Your task to perform on an android device: make emails show in primary in the gmail app Image 0: 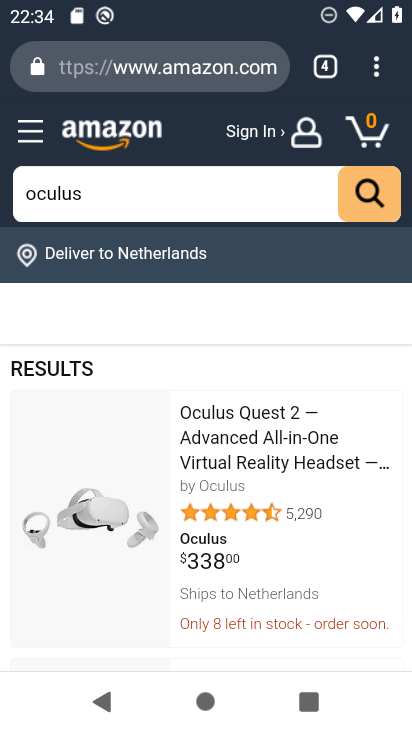
Step 0: press home button
Your task to perform on an android device: make emails show in primary in the gmail app Image 1: 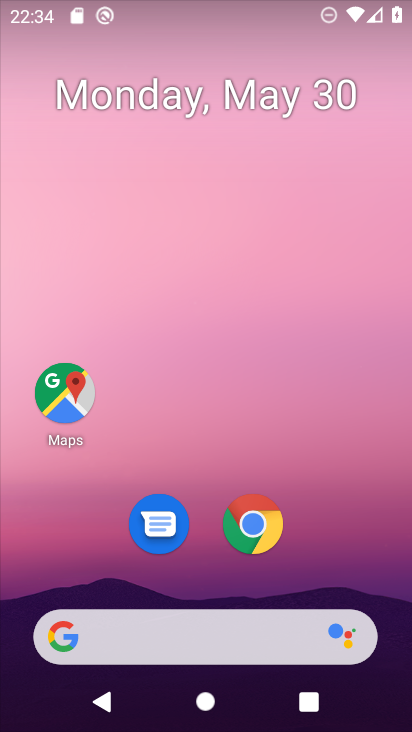
Step 1: drag from (344, 553) to (281, 49)
Your task to perform on an android device: make emails show in primary in the gmail app Image 2: 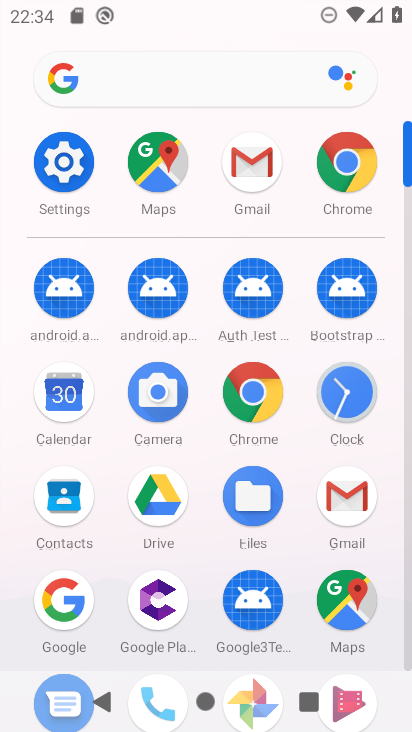
Step 2: click (256, 159)
Your task to perform on an android device: make emails show in primary in the gmail app Image 3: 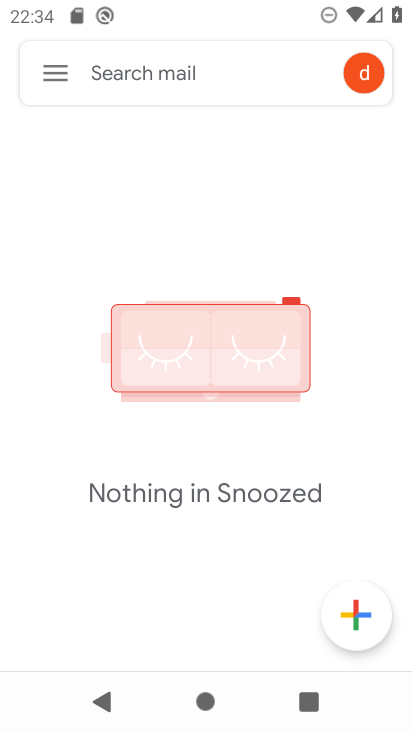
Step 3: click (58, 77)
Your task to perform on an android device: make emails show in primary in the gmail app Image 4: 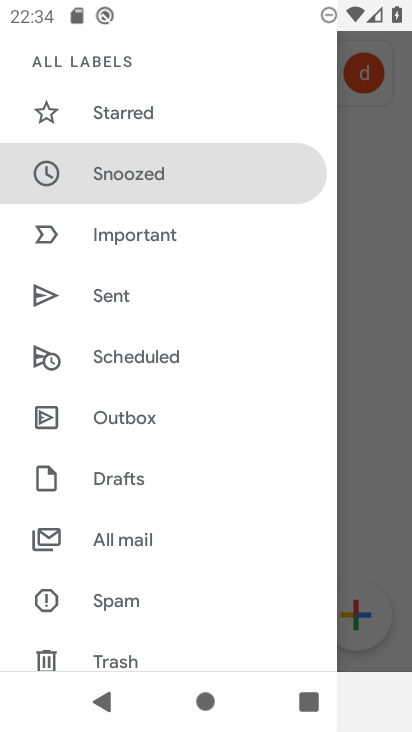
Step 4: drag from (157, 554) to (177, 186)
Your task to perform on an android device: make emails show in primary in the gmail app Image 5: 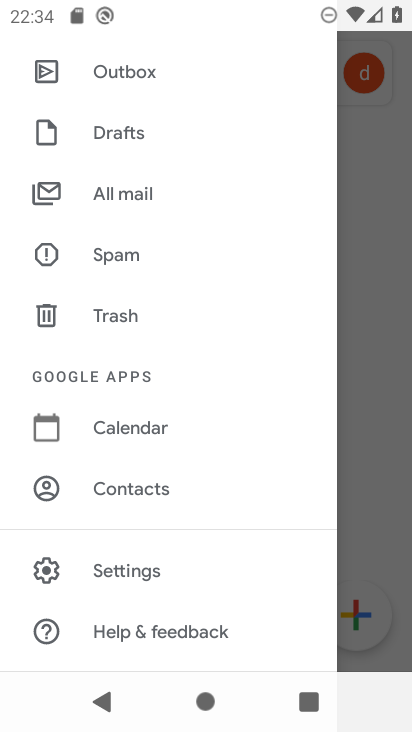
Step 5: click (201, 560)
Your task to perform on an android device: make emails show in primary in the gmail app Image 6: 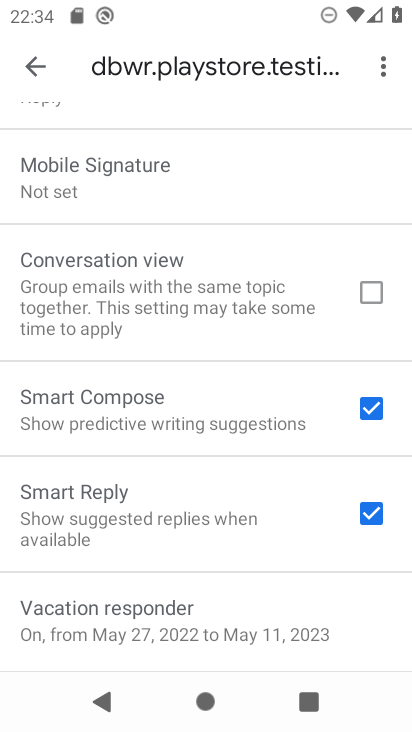
Step 6: drag from (159, 194) to (201, 691)
Your task to perform on an android device: make emails show in primary in the gmail app Image 7: 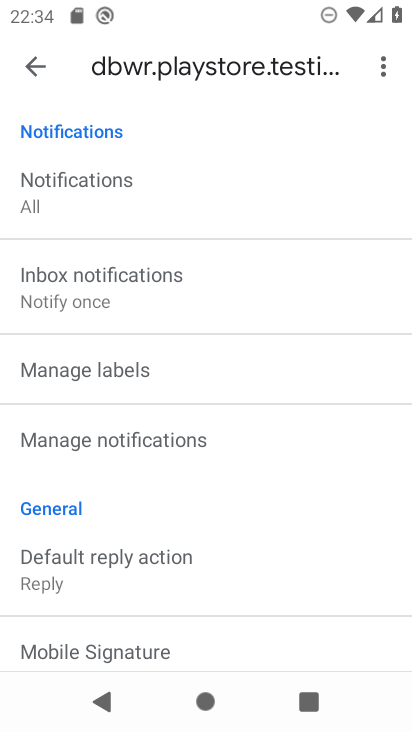
Step 7: drag from (223, 254) to (222, 699)
Your task to perform on an android device: make emails show in primary in the gmail app Image 8: 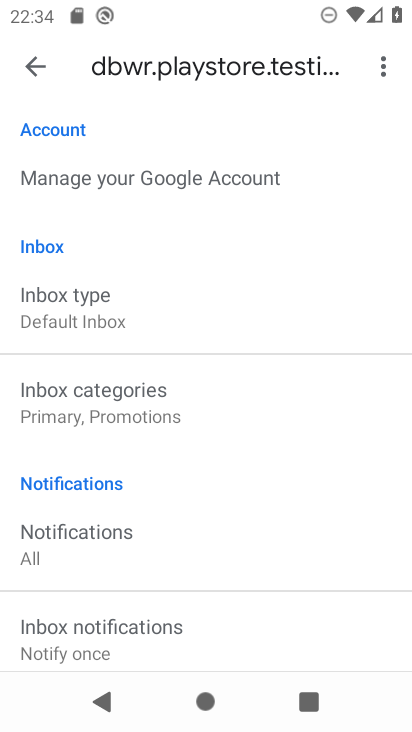
Step 8: click (114, 404)
Your task to perform on an android device: make emails show in primary in the gmail app Image 9: 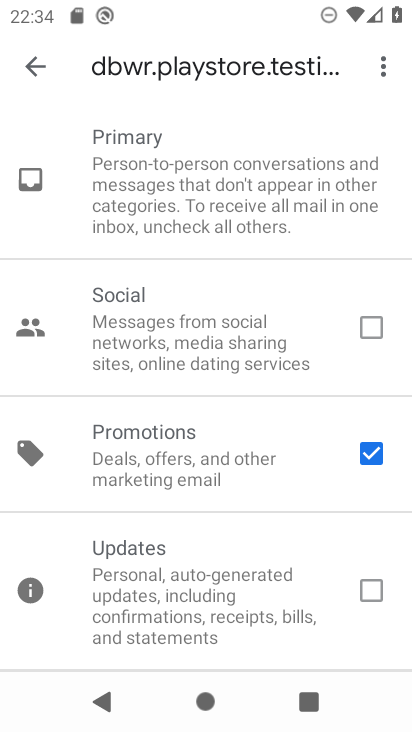
Step 9: click (377, 446)
Your task to perform on an android device: make emails show in primary in the gmail app Image 10: 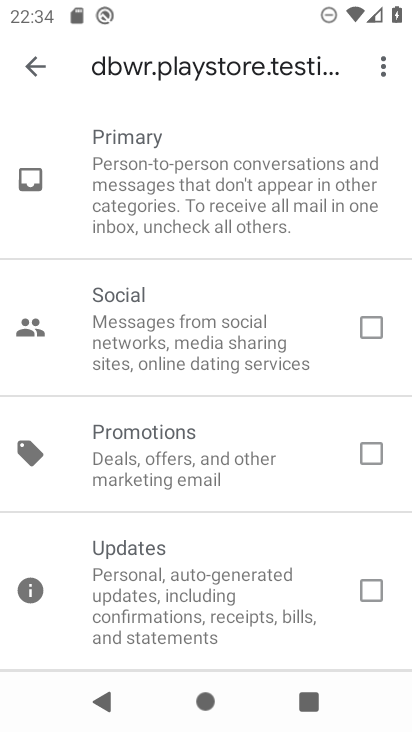
Step 10: click (41, 65)
Your task to perform on an android device: make emails show in primary in the gmail app Image 11: 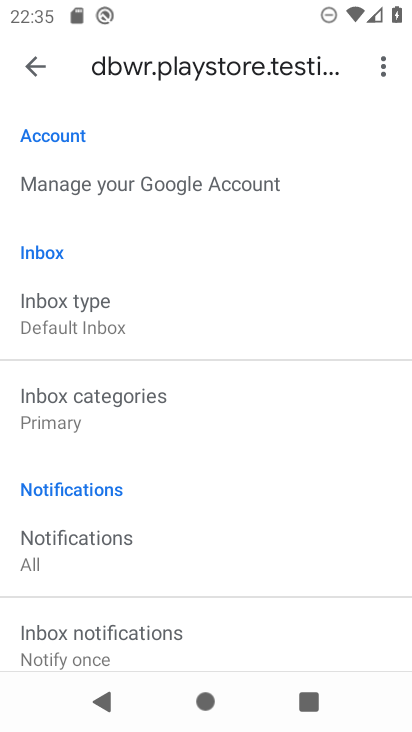
Step 11: task complete